Your task to perform on an android device: Open location settings Image 0: 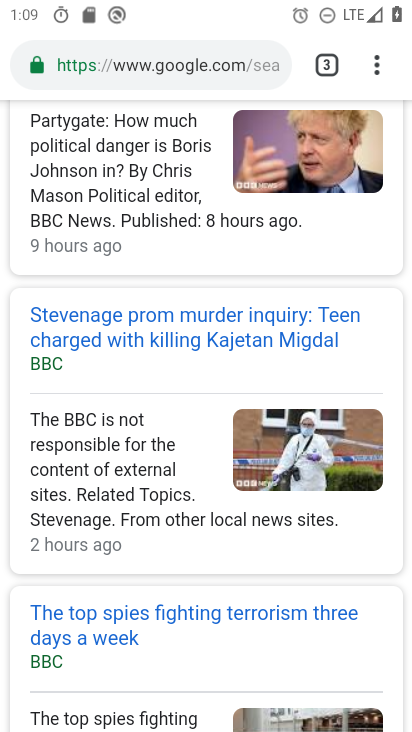
Step 0: press home button
Your task to perform on an android device: Open location settings Image 1: 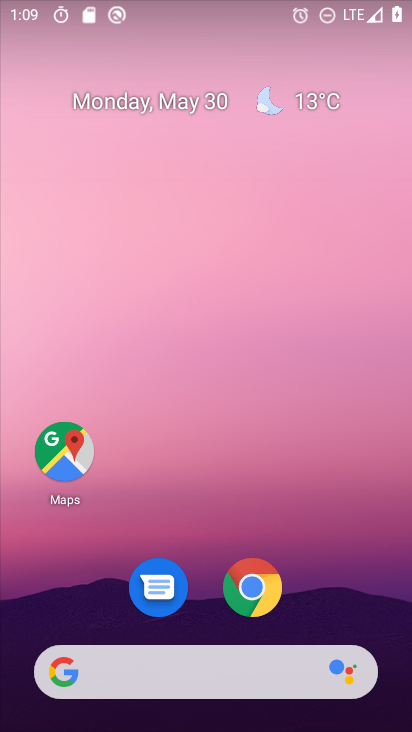
Step 1: drag from (336, 624) to (231, 83)
Your task to perform on an android device: Open location settings Image 2: 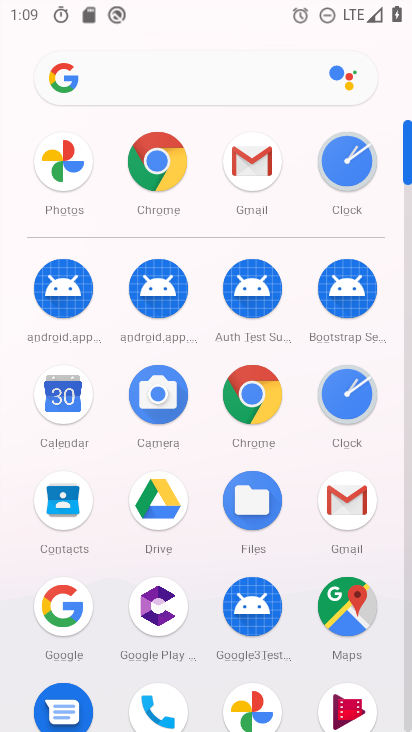
Step 2: drag from (310, 529) to (324, 140)
Your task to perform on an android device: Open location settings Image 3: 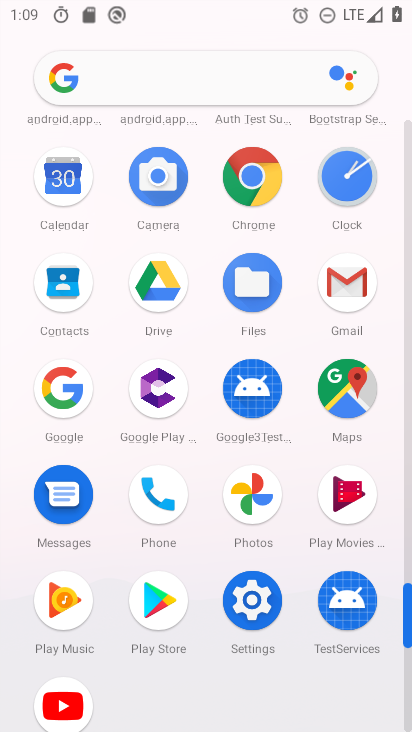
Step 3: click (259, 612)
Your task to perform on an android device: Open location settings Image 4: 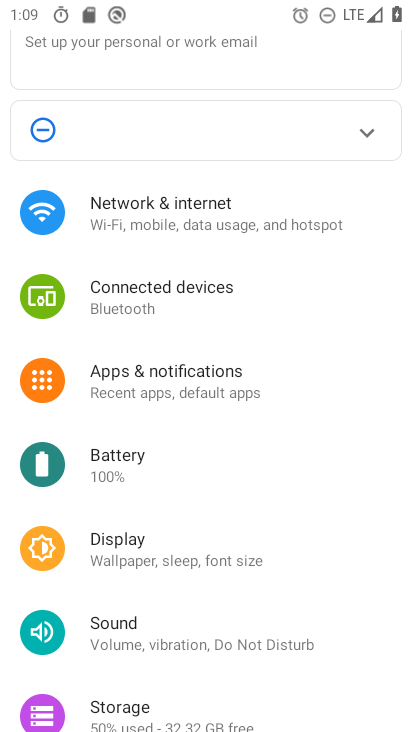
Step 4: drag from (215, 534) to (182, 129)
Your task to perform on an android device: Open location settings Image 5: 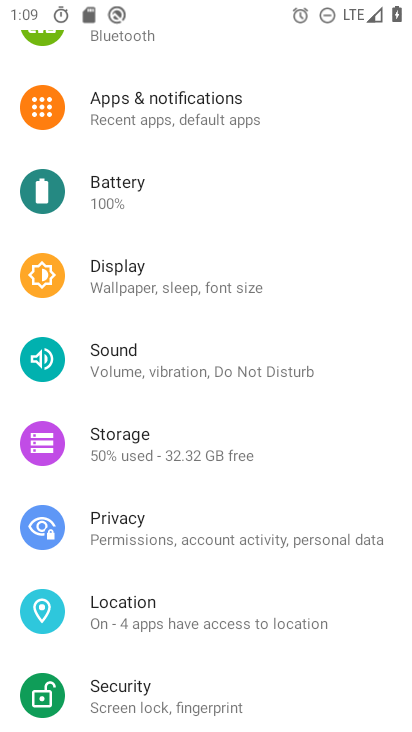
Step 5: click (176, 627)
Your task to perform on an android device: Open location settings Image 6: 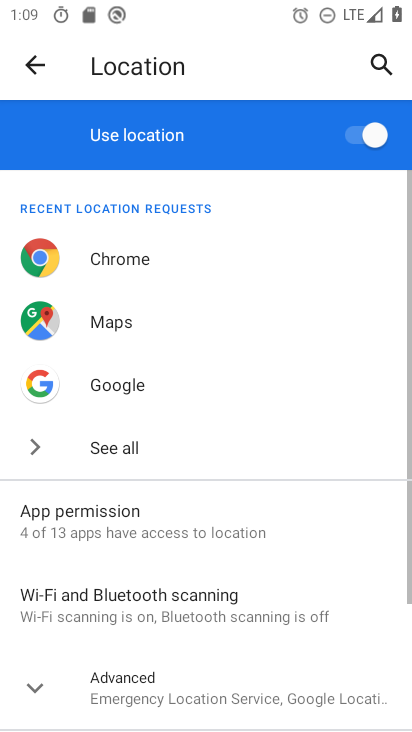
Step 6: task complete